Your task to perform on an android device: Go to display settings Image 0: 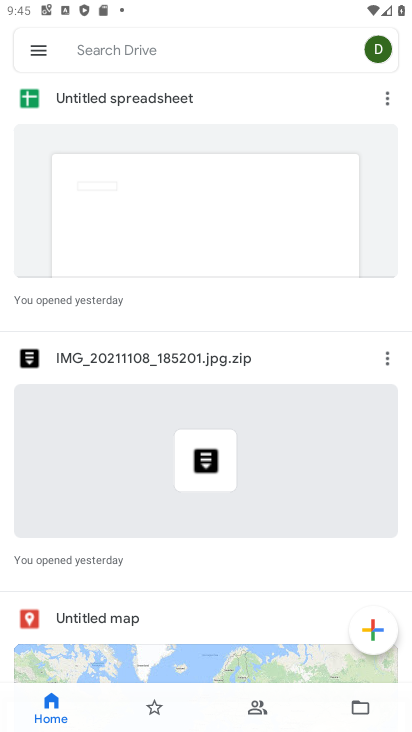
Step 0: press home button
Your task to perform on an android device: Go to display settings Image 1: 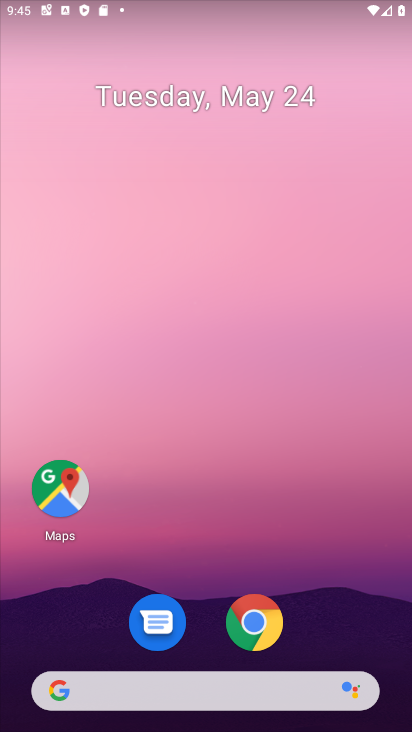
Step 1: drag from (200, 716) to (410, 51)
Your task to perform on an android device: Go to display settings Image 2: 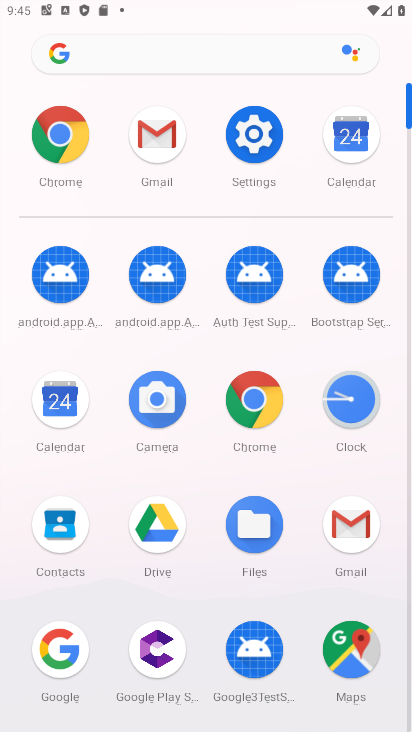
Step 2: click (272, 126)
Your task to perform on an android device: Go to display settings Image 3: 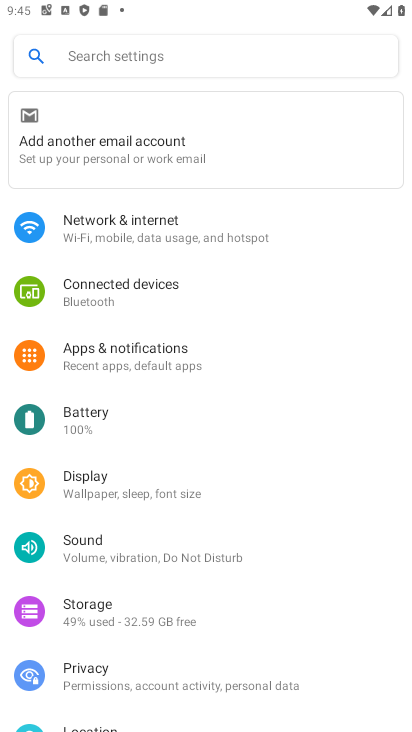
Step 3: click (145, 488)
Your task to perform on an android device: Go to display settings Image 4: 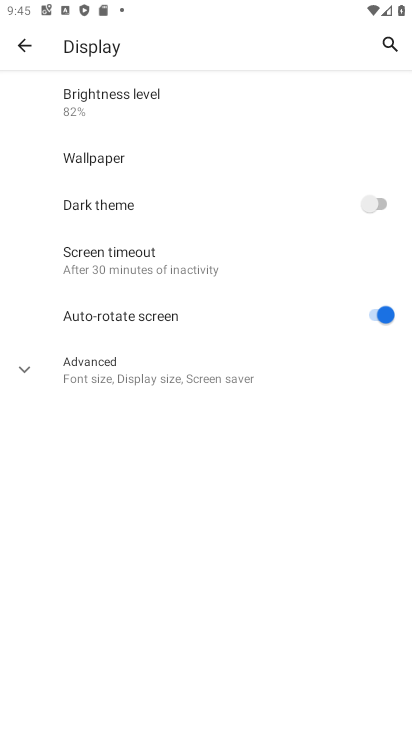
Step 4: task complete